Your task to perform on an android device: Open the calendar and show me this week's events? Image 0: 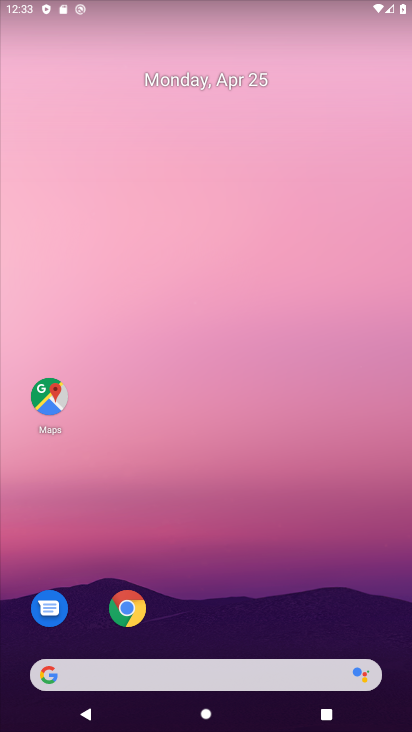
Step 0: drag from (203, 622) to (191, 161)
Your task to perform on an android device: Open the calendar and show me this week's events? Image 1: 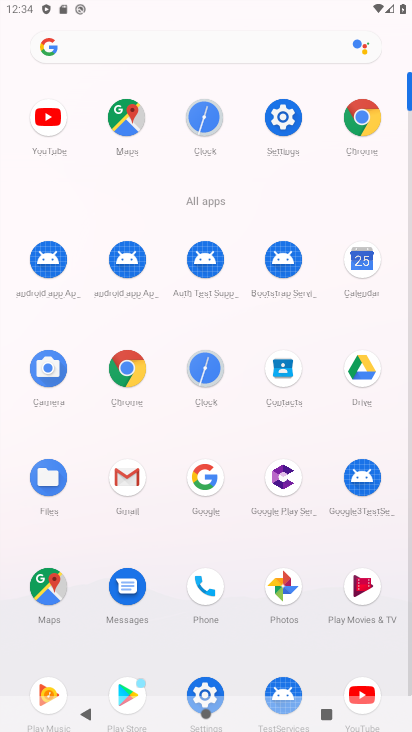
Step 1: click (367, 276)
Your task to perform on an android device: Open the calendar and show me this week's events? Image 2: 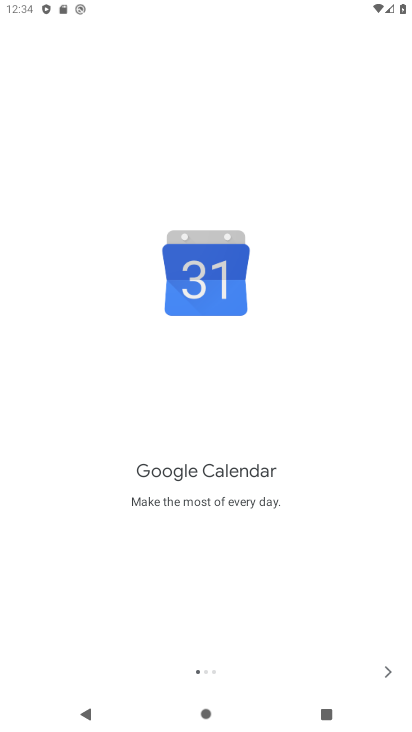
Step 2: click (393, 677)
Your task to perform on an android device: Open the calendar and show me this week's events? Image 3: 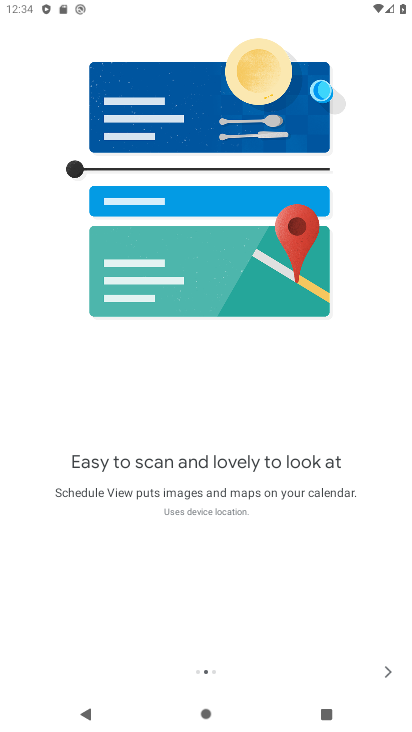
Step 3: click (393, 677)
Your task to perform on an android device: Open the calendar and show me this week's events? Image 4: 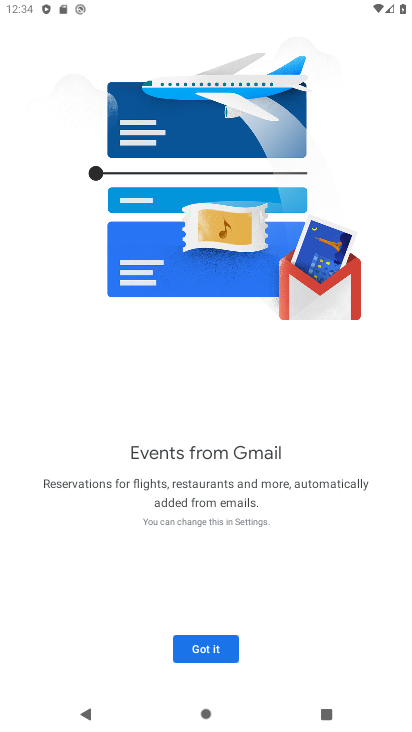
Step 4: click (187, 649)
Your task to perform on an android device: Open the calendar and show me this week's events? Image 5: 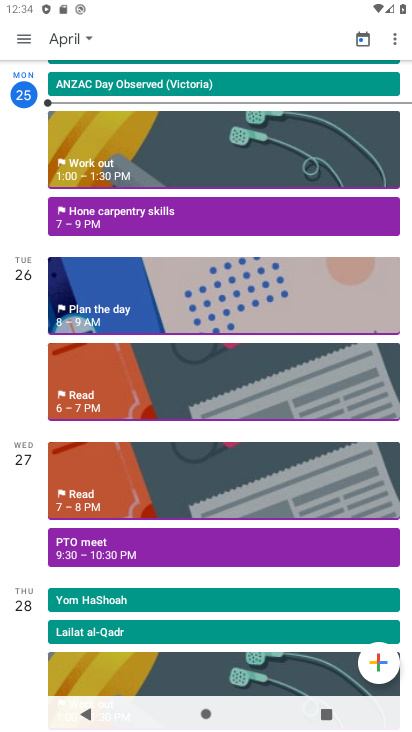
Step 5: click (78, 41)
Your task to perform on an android device: Open the calendar and show me this week's events? Image 6: 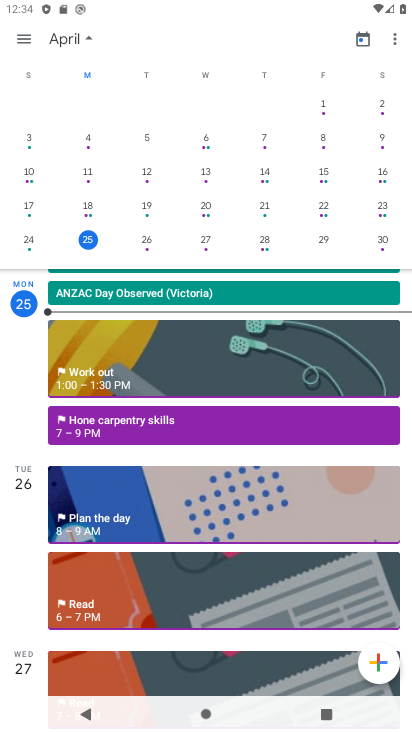
Step 6: click (21, 41)
Your task to perform on an android device: Open the calendar and show me this week's events? Image 7: 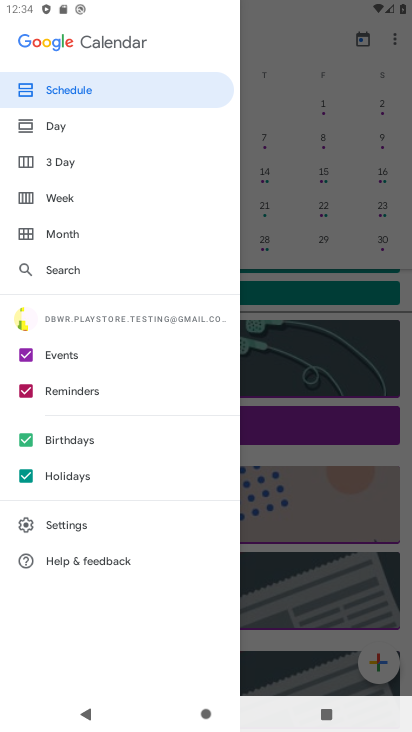
Step 7: click (73, 194)
Your task to perform on an android device: Open the calendar and show me this week's events? Image 8: 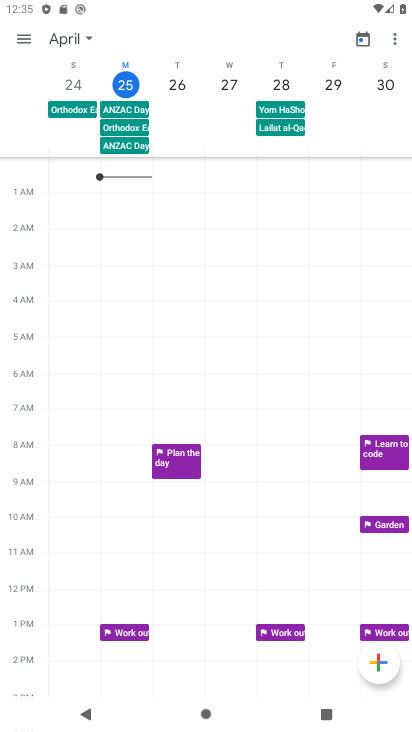
Step 8: task complete